Your task to perform on an android device: turn off wifi Image 0: 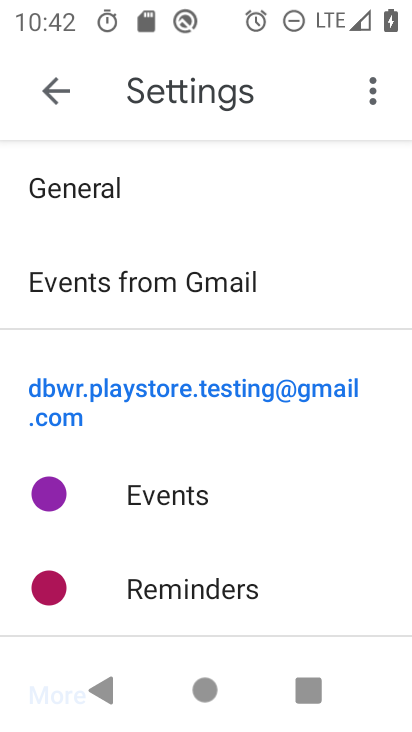
Step 0: drag from (179, 529) to (223, 10)
Your task to perform on an android device: turn off wifi Image 1: 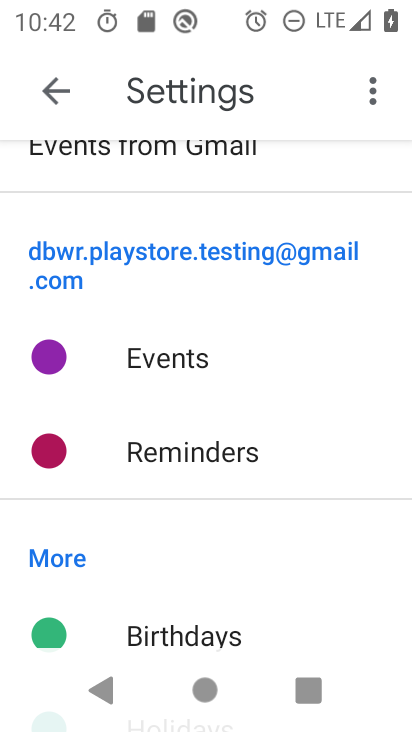
Step 1: drag from (206, 554) to (288, 277)
Your task to perform on an android device: turn off wifi Image 2: 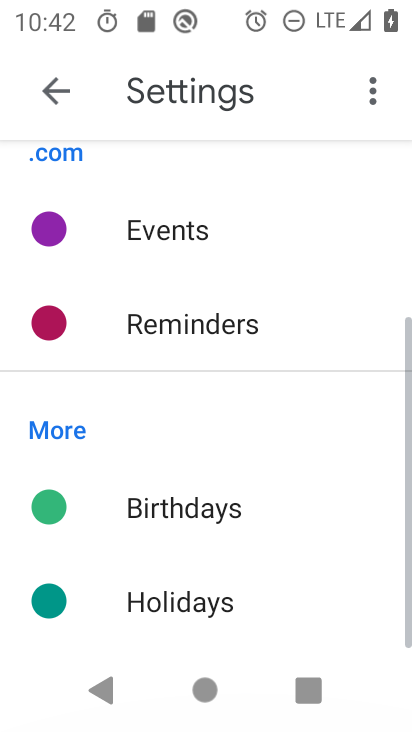
Step 2: drag from (305, 204) to (401, 725)
Your task to perform on an android device: turn off wifi Image 3: 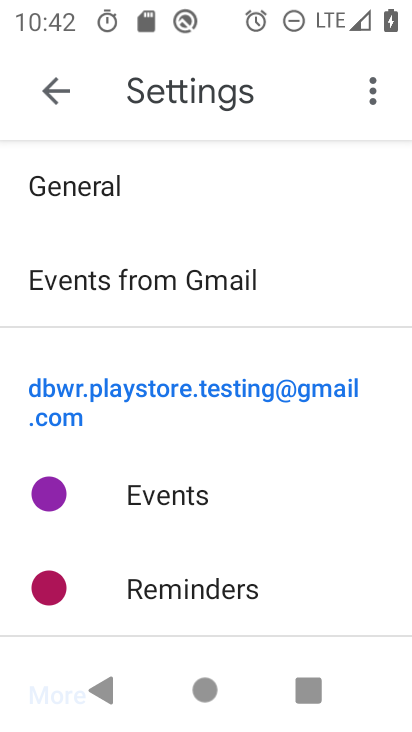
Step 3: press home button
Your task to perform on an android device: turn off wifi Image 4: 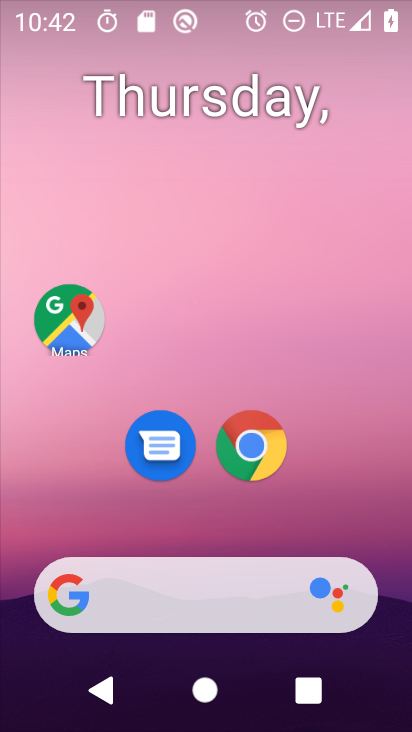
Step 4: drag from (201, 511) to (231, 128)
Your task to perform on an android device: turn off wifi Image 5: 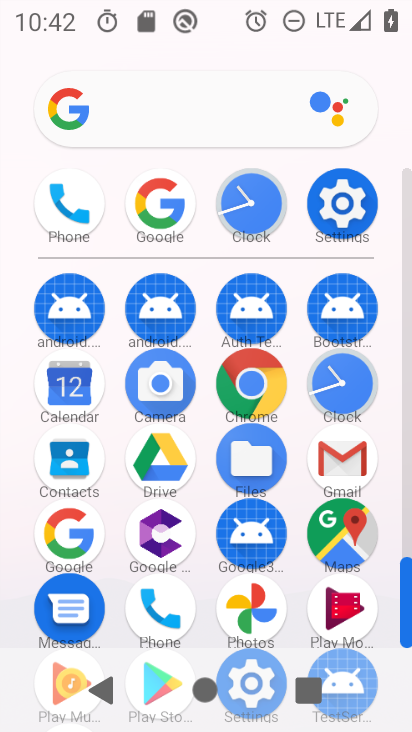
Step 5: click (358, 199)
Your task to perform on an android device: turn off wifi Image 6: 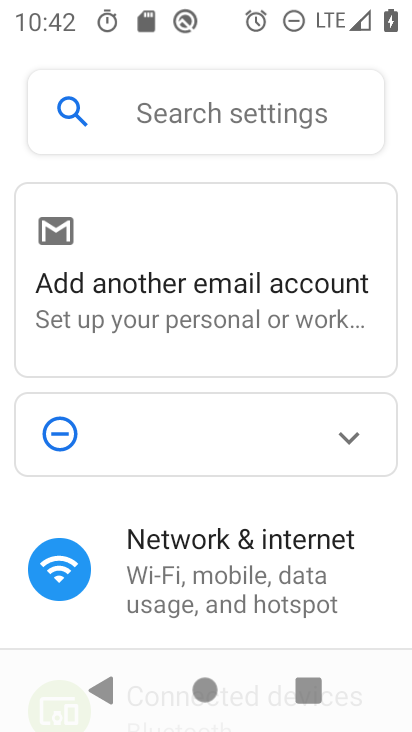
Step 6: drag from (218, 346) to (340, 0)
Your task to perform on an android device: turn off wifi Image 7: 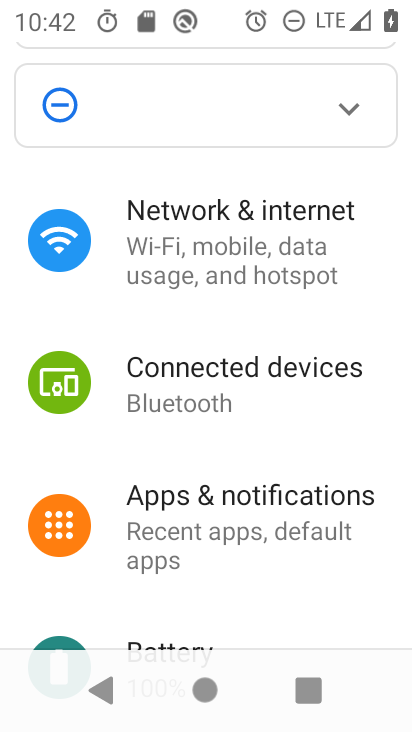
Step 7: click (236, 258)
Your task to perform on an android device: turn off wifi Image 8: 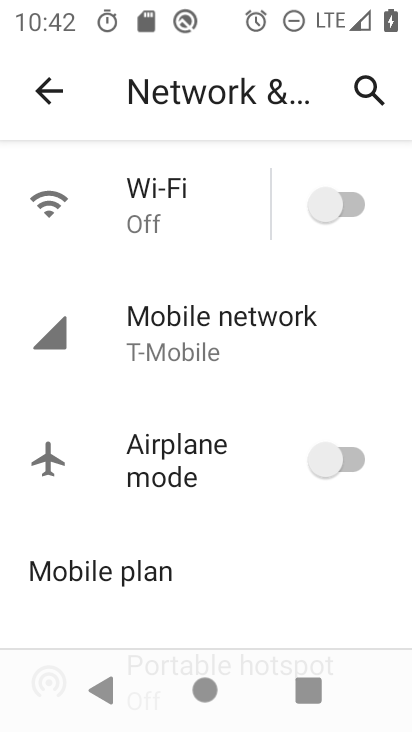
Step 8: click (244, 197)
Your task to perform on an android device: turn off wifi Image 9: 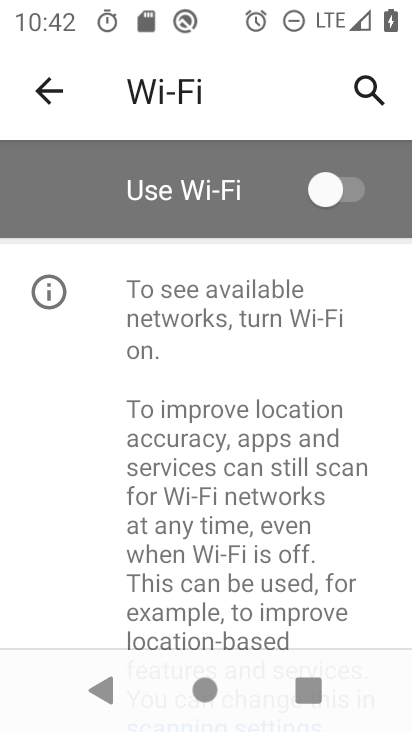
Step 9: task complete